Your task to perform on an android device: turn notification dots off Image 0: 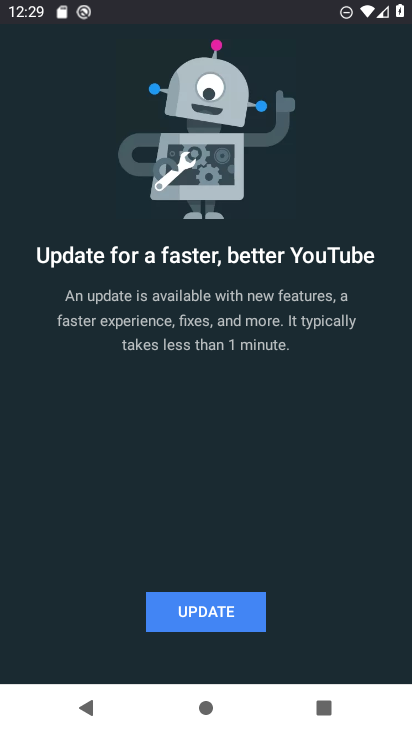
Step 0: press home button
Your task to perform on an android device: turn notification dots off Image 1: 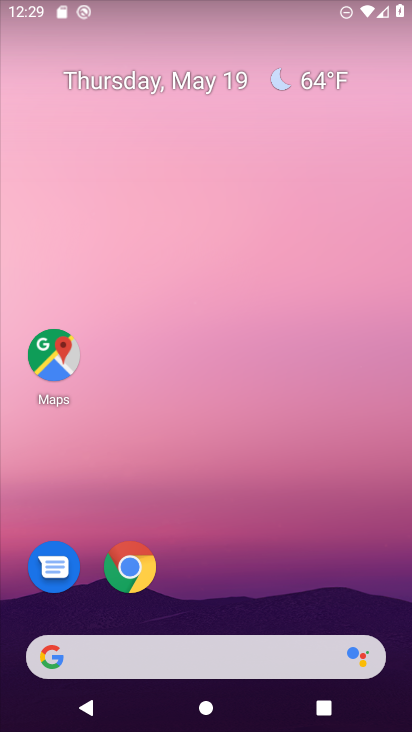
Step 1: drag from (255, 450) to (260, 181)
Your task to perform on an android device: turn notification dots off Image 2: 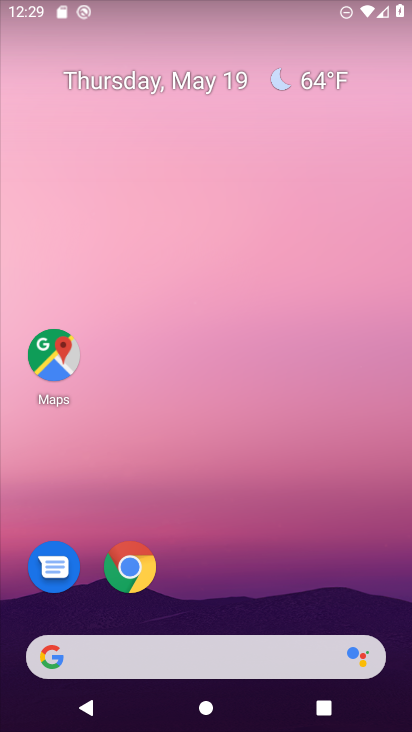
Step 2: drag from (184, 554) to (235, 46)
Your task to perform on an android device: turn notification dots off Image 3: 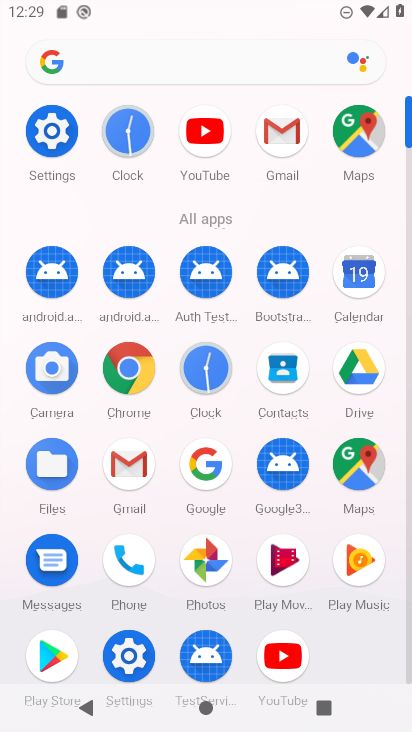
Step 3: click (37, 158)
Your task to perform on an android device: turn notification dots off Image 4: 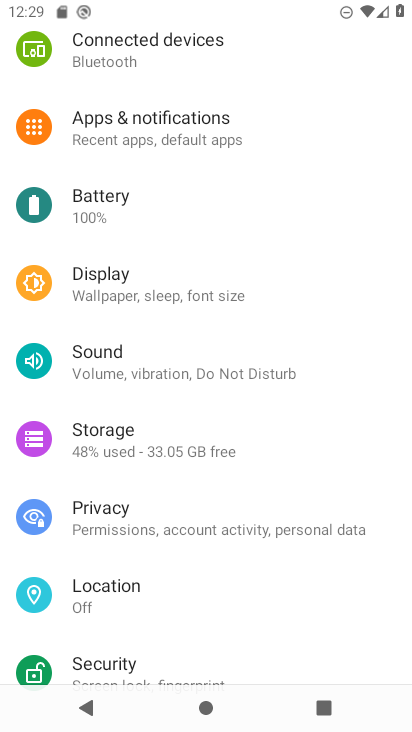
Step 4: click (189, 612)
Your task to perform on an android device: turn notification dots off Image 5: 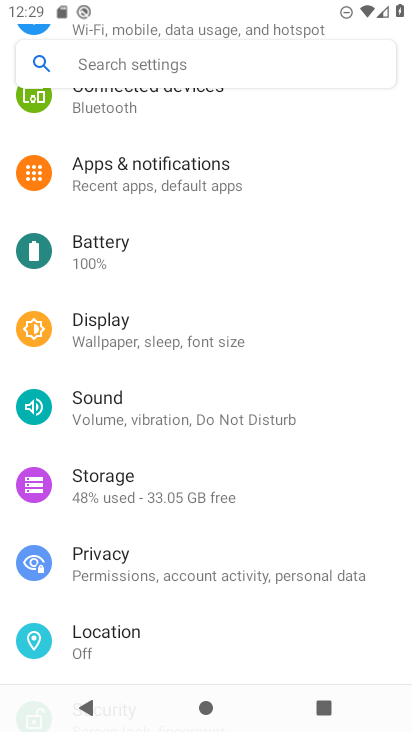
Step 5: drag from (225, 285) to (227, 434)
Your task to perform on an android device: turn notification dots off Image 6: 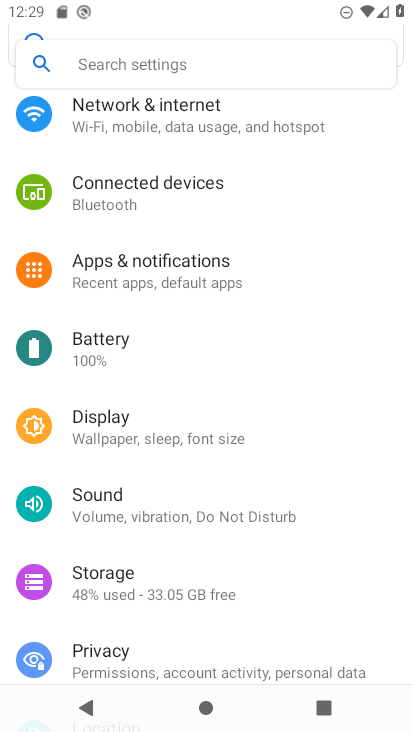
Step 6: click (193, 284)
Your task to perform on an android device: turn notification dots off Image 7: 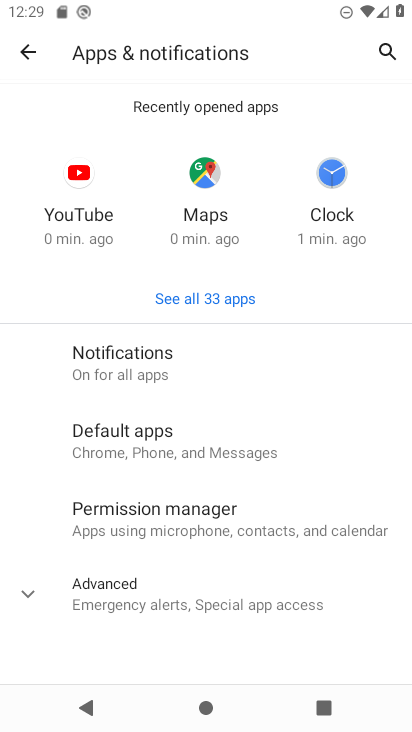
Step 7: click (157, 374)
Your task to perform on an android device: turn notification dots off Image 8: 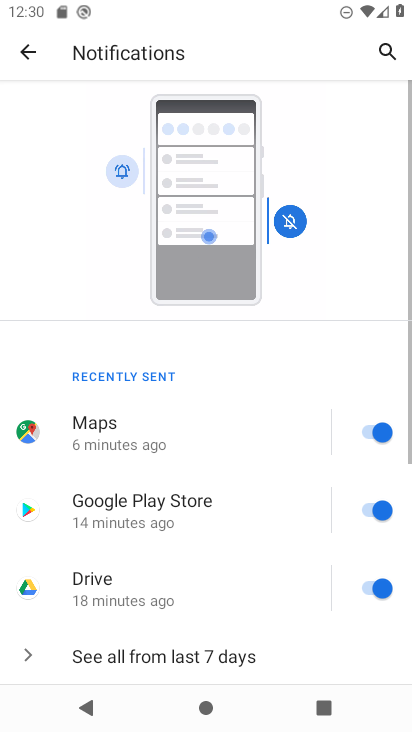
Step 8: drag from (189, 600) to (225, 104)
Your task to perform on an android device: turn notification dots off Image 9: 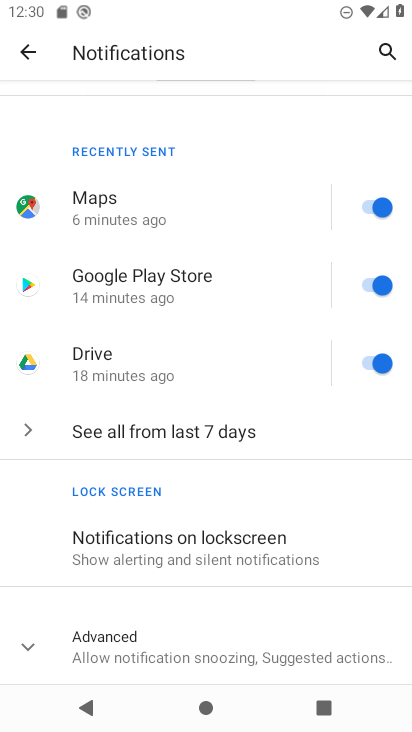
Step 9: click (34, 648)
Your task to perform on an android device: turn notification dots off Image 10: 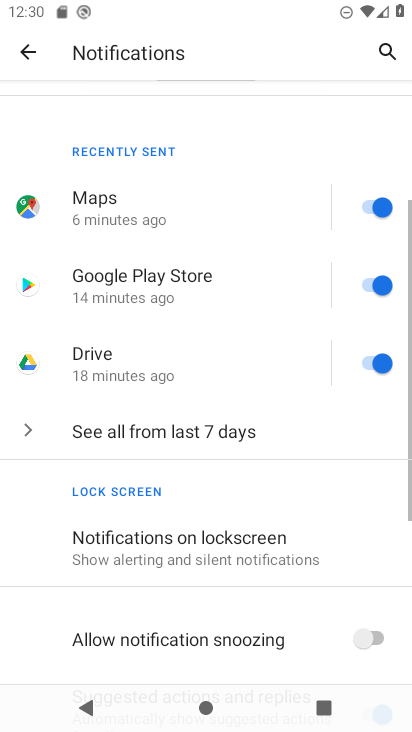
Step 10: drag from (177, 627) to (199, 309)
Your task to perform on an android device: turn notification dots off Image 11: 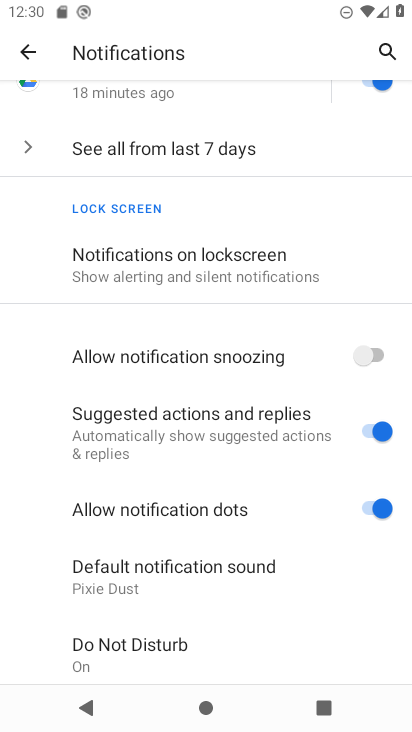
Step 11: click (389, 511)
Your task to perform on an android device: turn notification dots off Image 12: 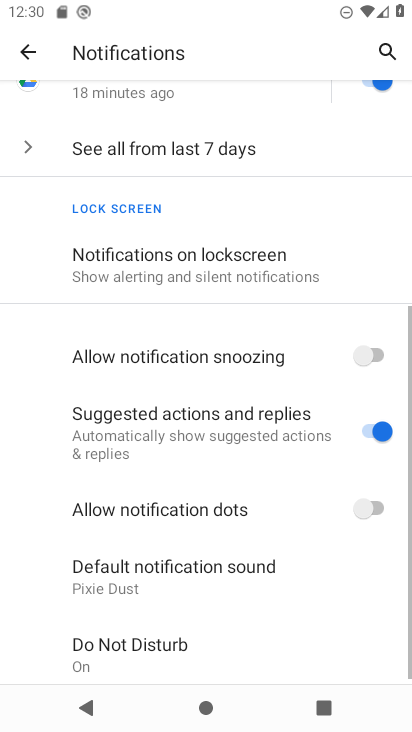
Step 12: task complete